Your task to perform on an android device: turn off priority inbox in the gmail app Image 0: 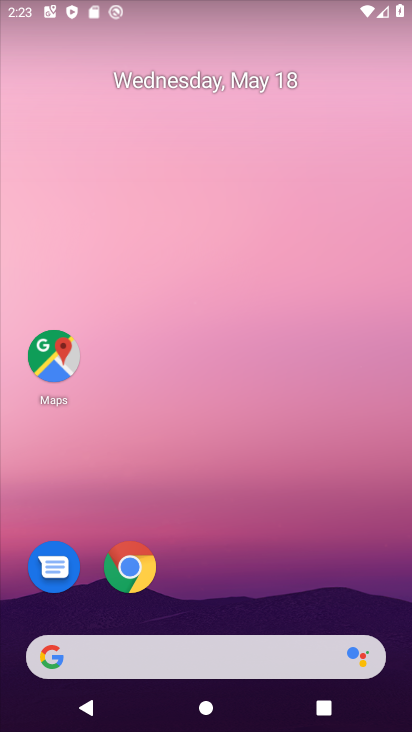
Step 0: drag from (237, 573) to (222, 204)
Your task to perform on an android device: turn off priority inbox in the gmail app Image 1: 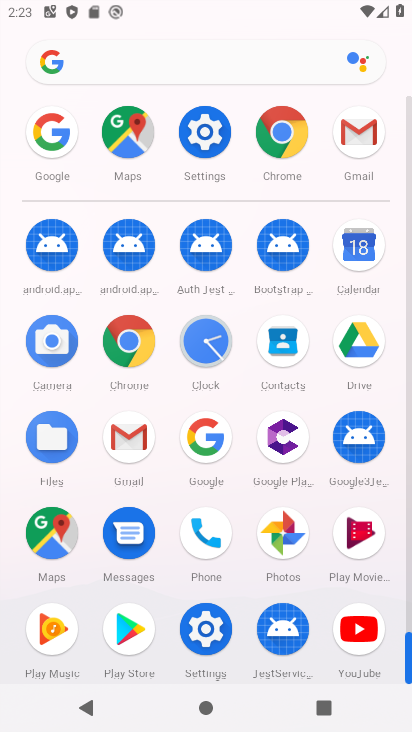
Step 1: click (116, 434)
Your task to perform on an android device: turn off priority inbox in the gmail app Image 2: 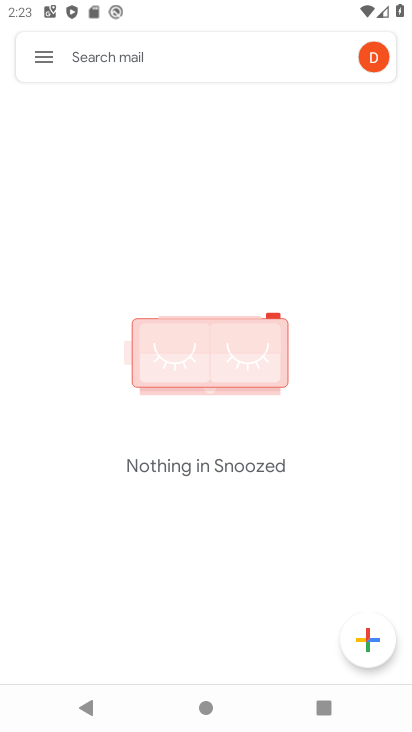
Step 2: click (34, 50)
Your task to perform on an android device: turn off priority inbox in the gmail app Image 3: 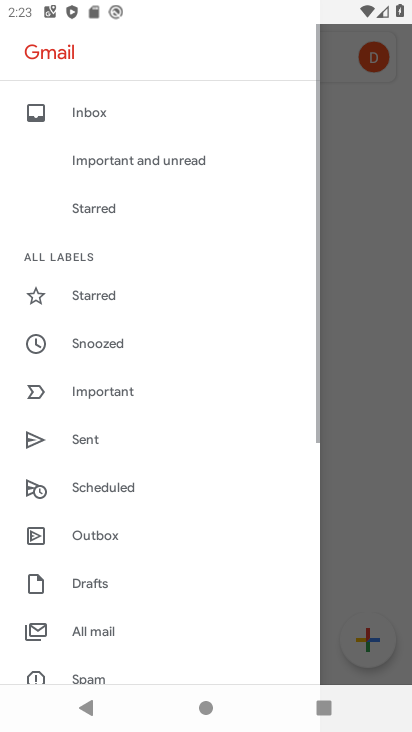
Step 3: drag from (127, 584) to (191, 218)
Your task to perform on an android device: turn off priority inbox in the gmail app Image 4: 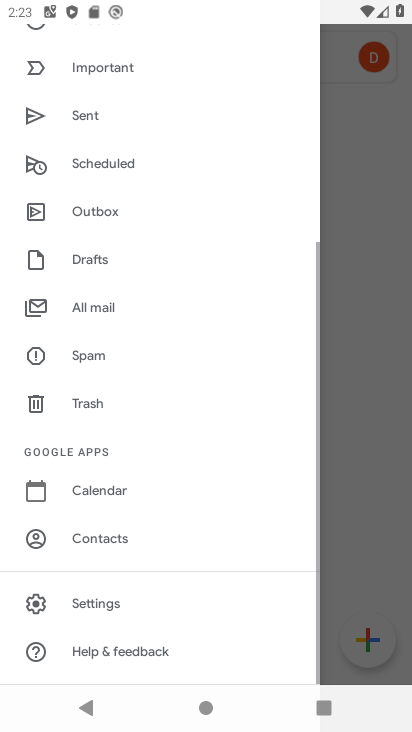
Step 4: click (86, 599)
Your task to perform on an android device: turn off priority inbox in the gmail app Image 5: 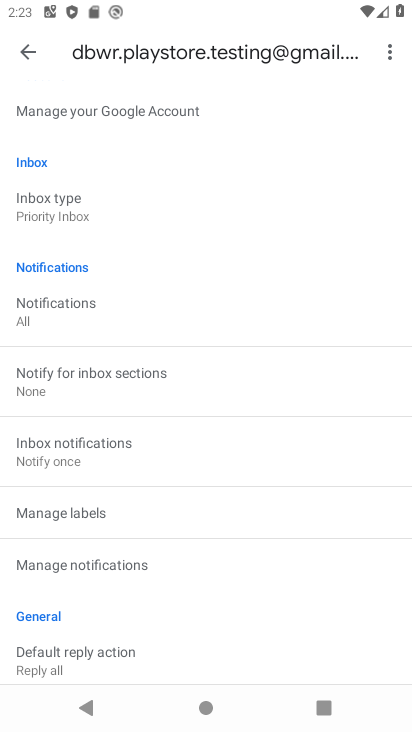
Step 5: click (73, 214)
Your task to perform on an android device: turn off priority inbox in the gmail app Image 6: 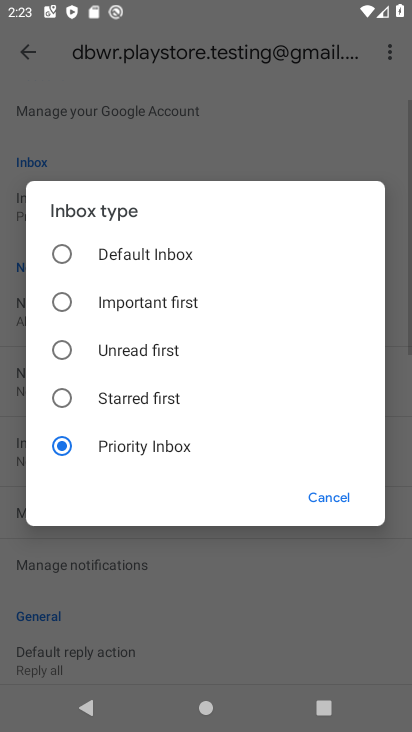
Step 6: click (120, 259)
Your task to perform on an android device: turn off priority inbox in the gmail app Image 7: 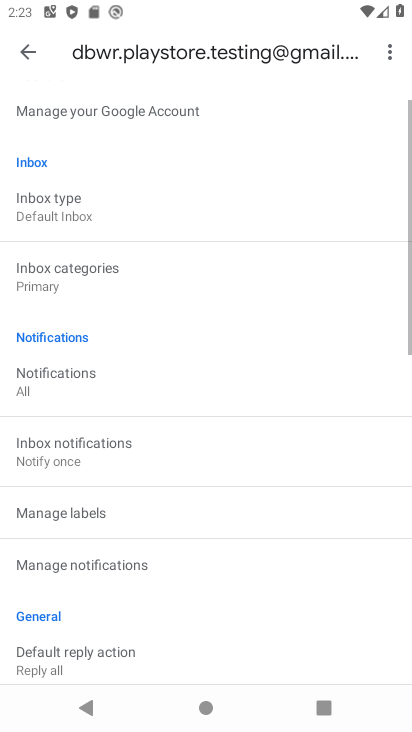
Step 7: task complete